Your task to perform on an android device: Open wifi settings Image 0: 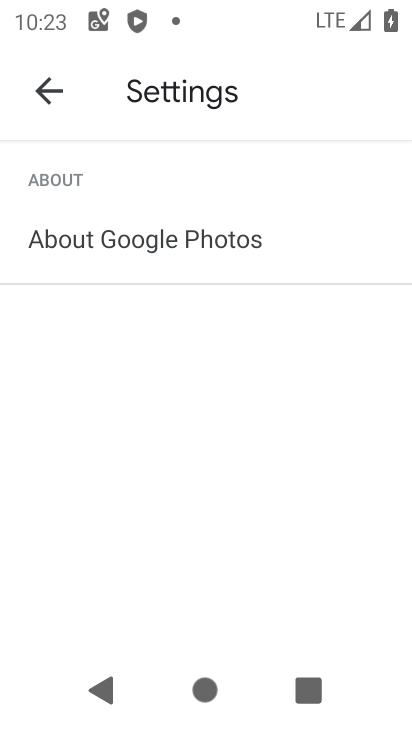
Step 0: press home button
Your task to perform on an android device: Open wifi settings Image 1: 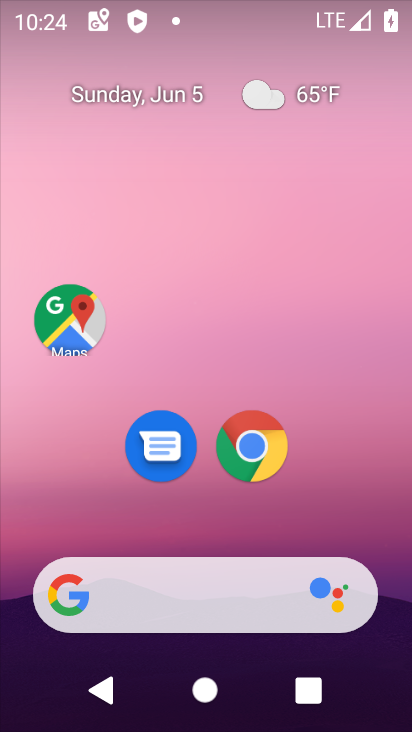
Step 1: drag from (235, 513) to (222, 349)
Your task to perform on an android device: Open wifi settings Image 2: 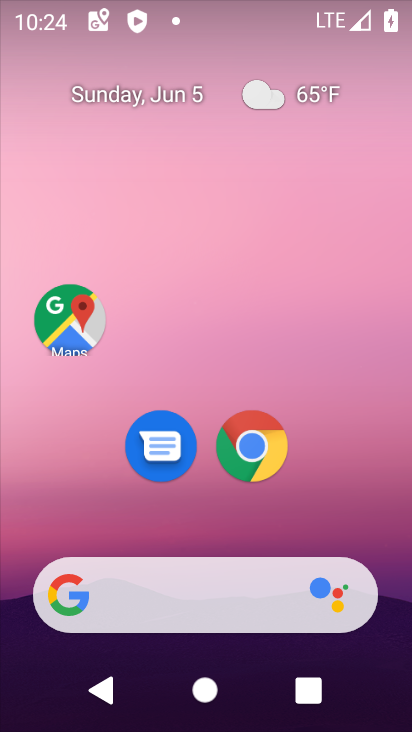
Step 2: drag from (209, 539) to (174, 23)
Your task to perform on an android device: Open wifi settings Image 3: 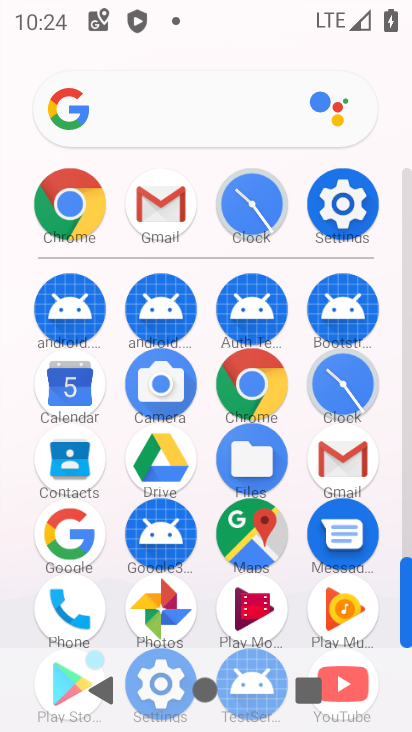
Step 3: click (344, 200)
Your task to perform on an android device: Open wifi settings Image 4: 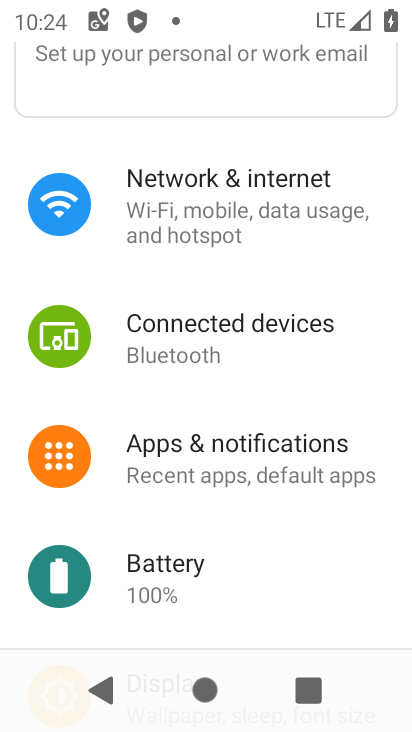
Step 4: click (201, 226)
Your task to perform on an android device: Open wifi settings Image 5: 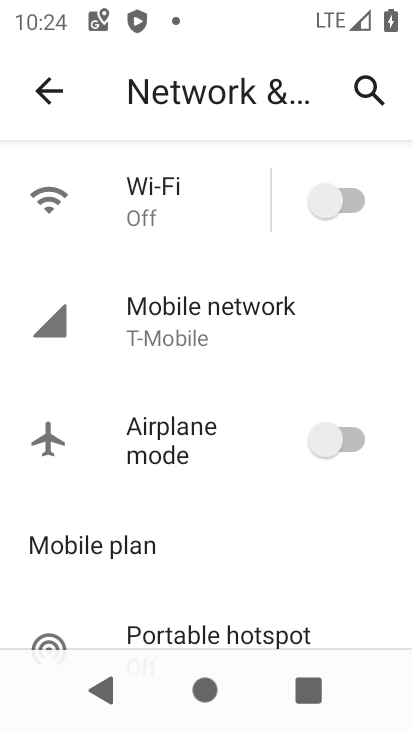
Step 5: click (175, 206)
Your task to perform on an android device: Open wifi settings Image 6: 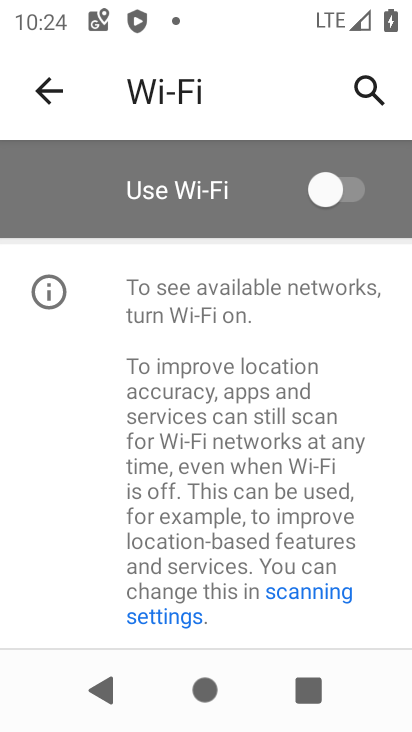
Step 6: task complete